Your task to perform on an android device: see tabs open on other devices in the chrome app Image 0: 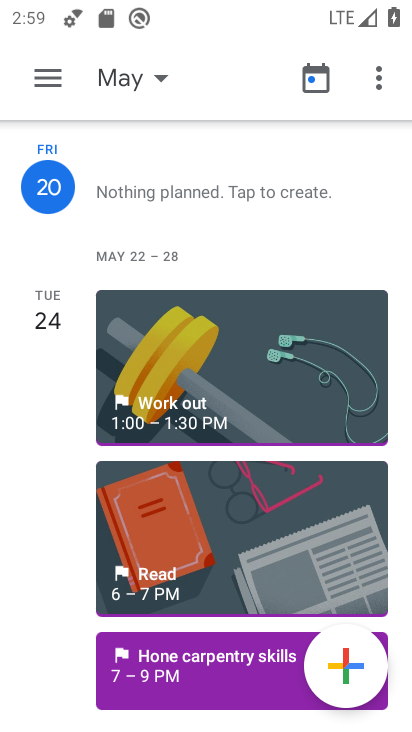
Step 0: press home button
Your task to perform on an android device: see tabs open on other devices in the chrome app Image 1: 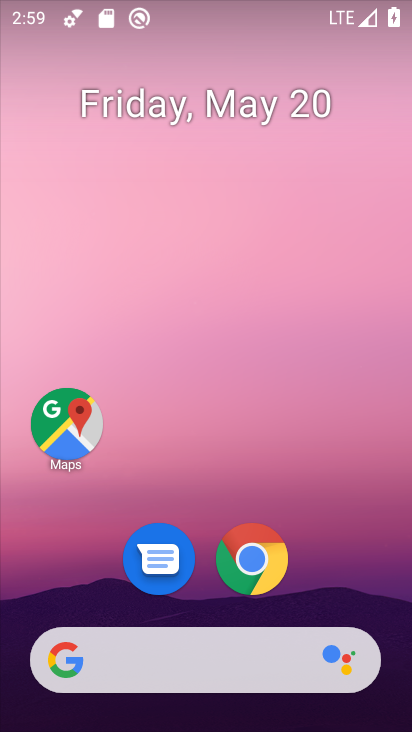
Step 1: click (260, 560)
Your task to perform on an android device: see tabs open on other devices in the chrome app Image 2: 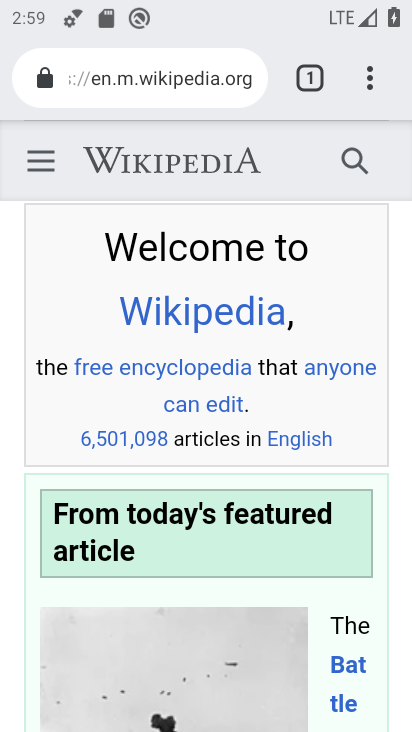
Step 2: click (370, 83)
Your task to perform on an android device: see tabs open on other devices in the chrome app Image 3: 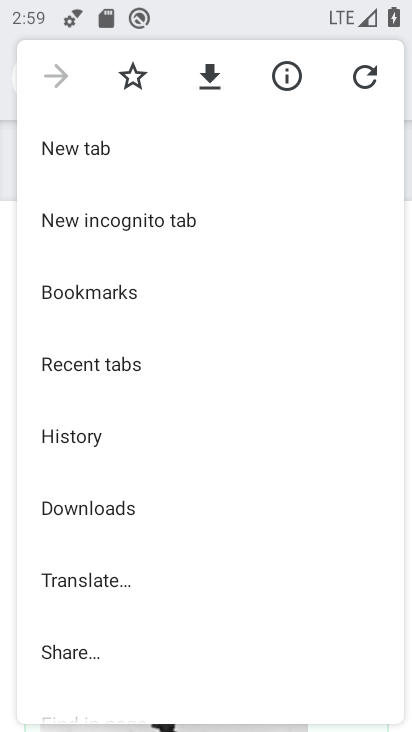
Step 3: click (92, 366)
Your task to perform on an android device: see tabs open on other devices in the chrome app Image 4: 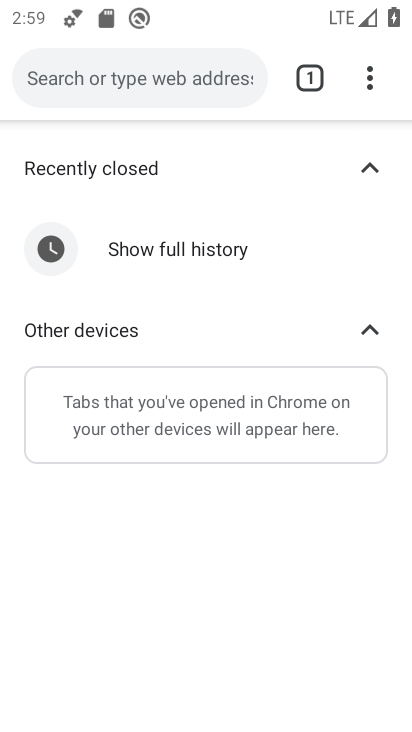
Step 4: task complete